Your task to perform on an android device: Go to notification settings Image 0: 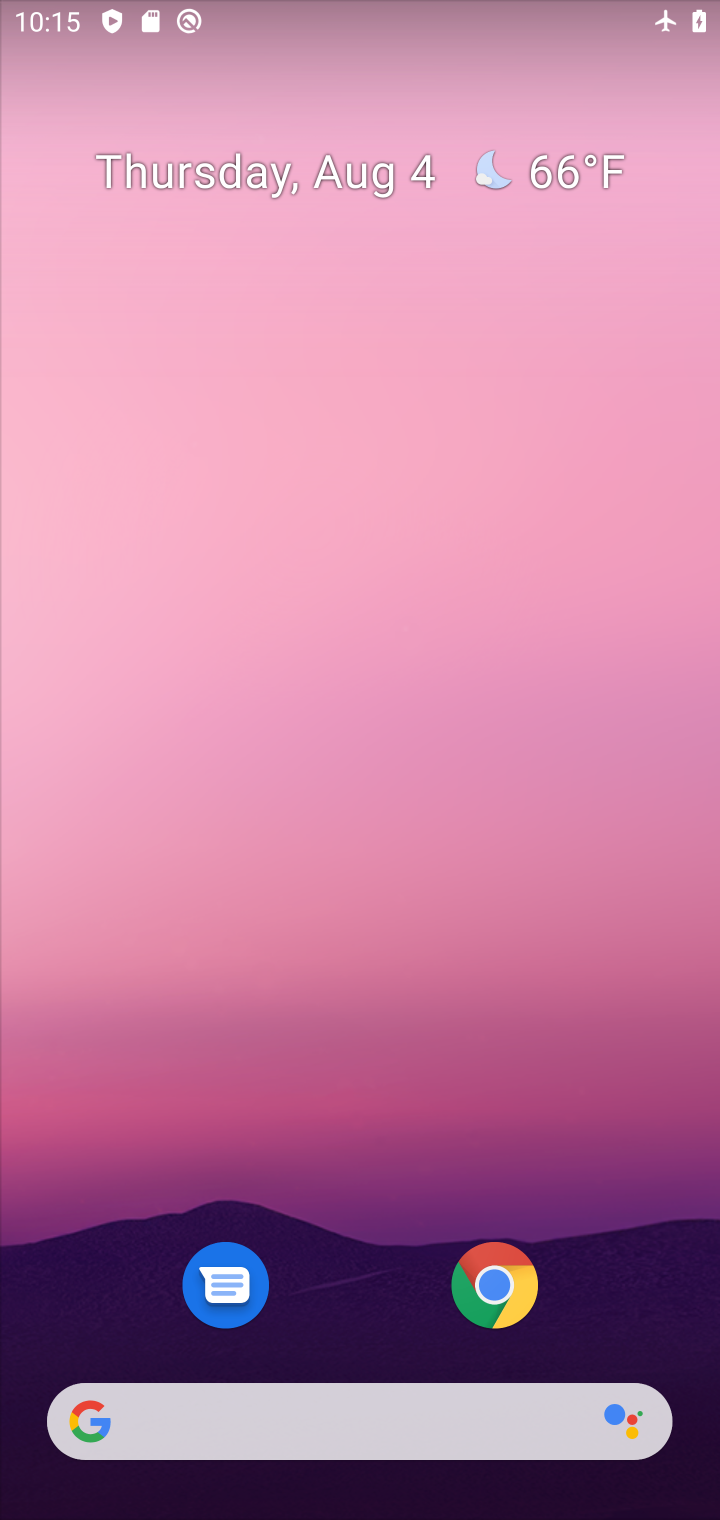
Step 0: drag from (391, 1124) to (444, 162)
Your task to perform on an android device: Go to notification settings Image 1: 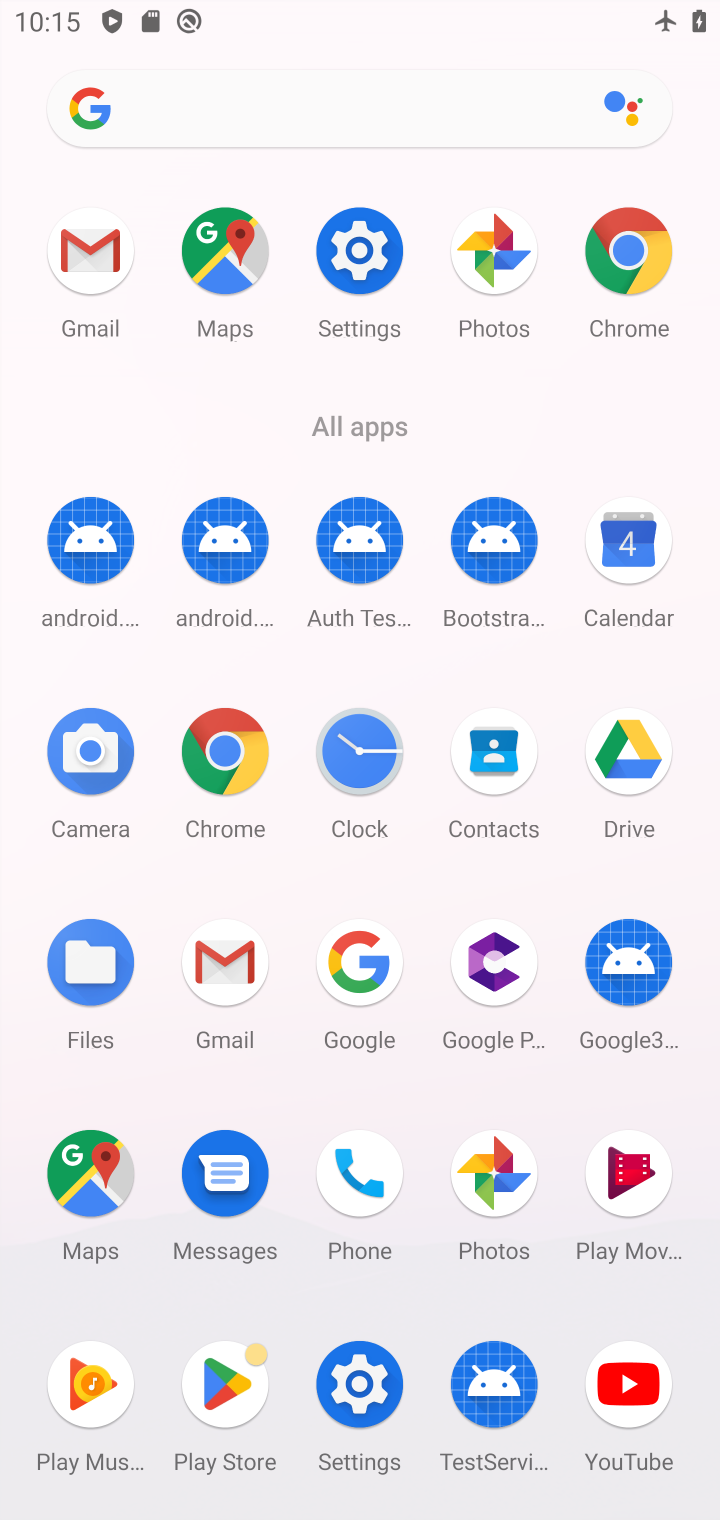
Step 1: click (370, 242)
Your task to perform on an android device: Go to notification settings Image 2: 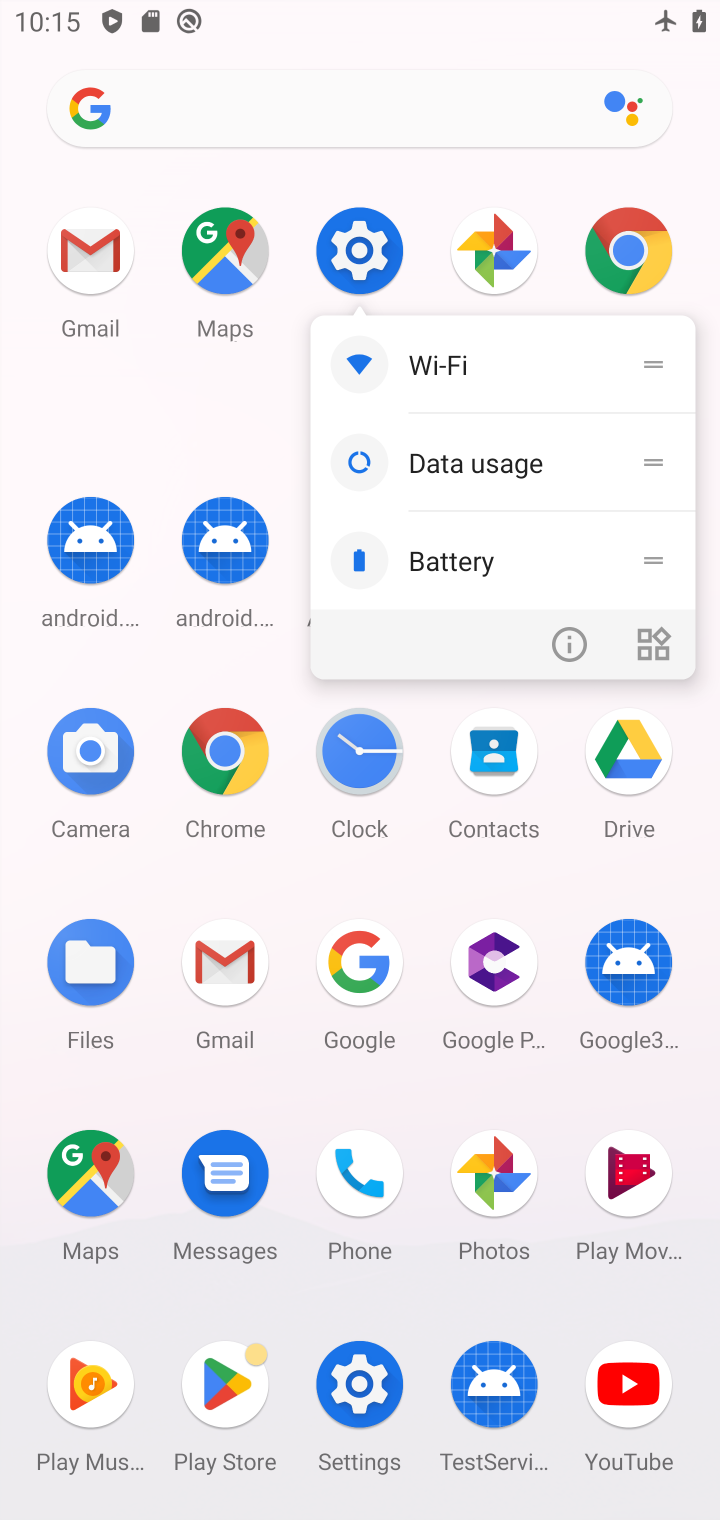
Step 2: click (370, 251)
Your task to perform on an android device: Go to notification settings Image 3: 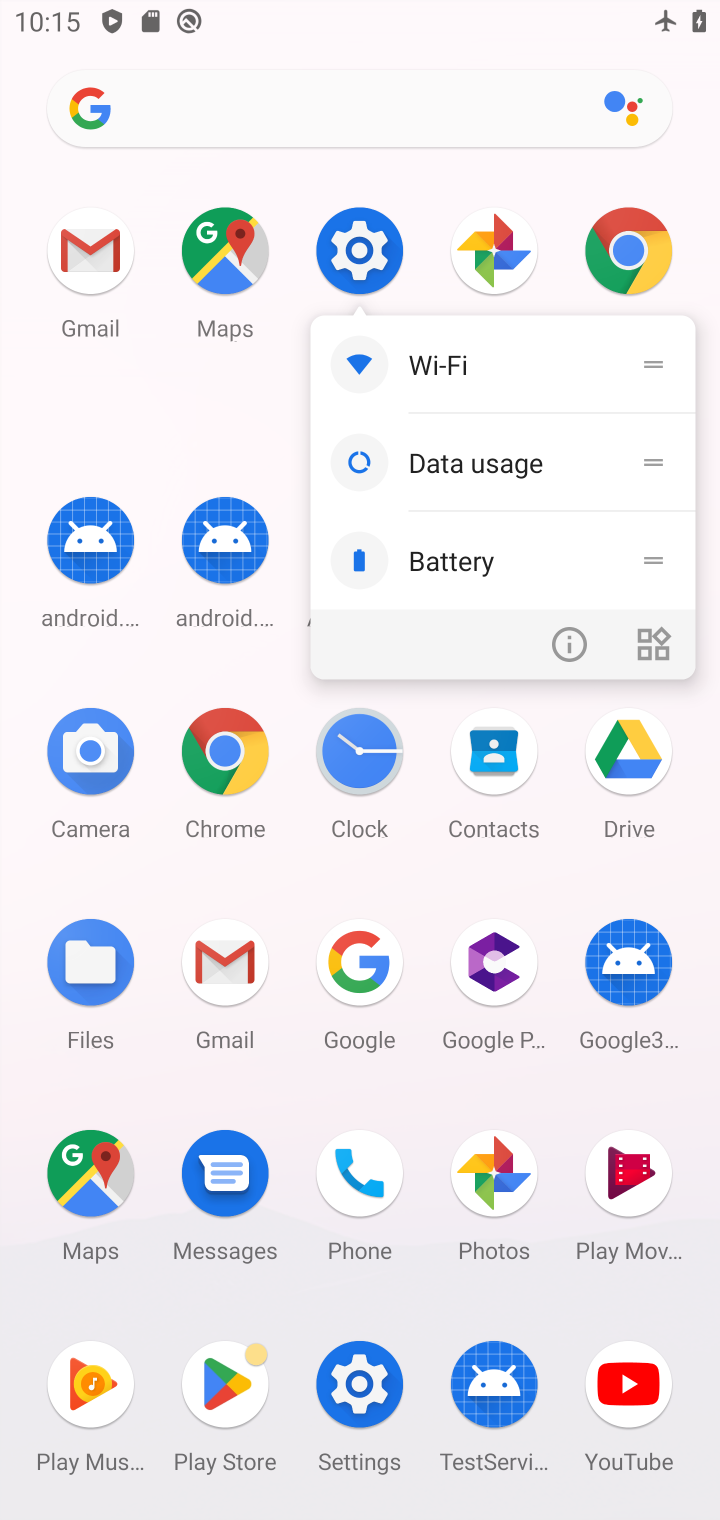
Step 3: click (354, 235)
Your task to perform on an android device: Go to notification settings Image 4: 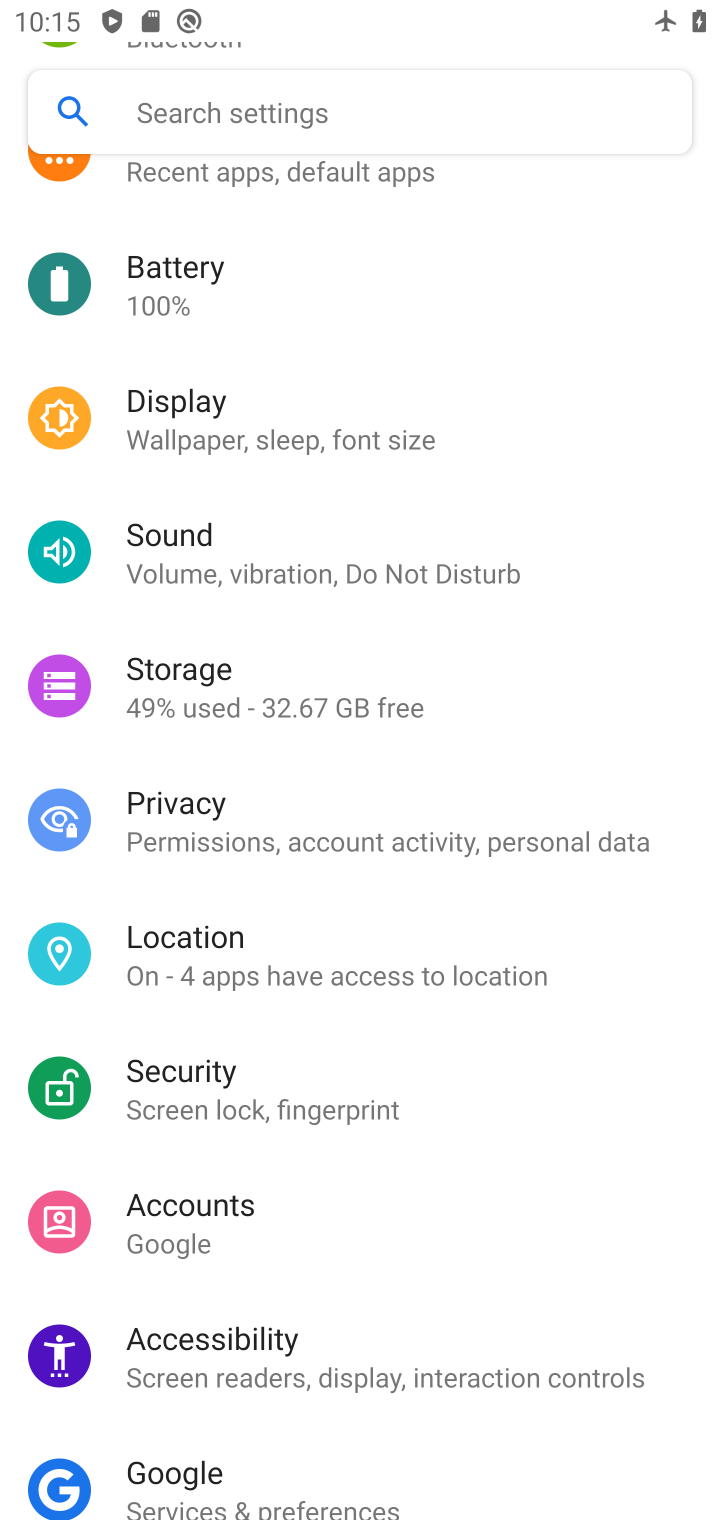
Step 4: drag from (377, 252) to (320, 1074)
Your task to perform on an android device: Go to notification settings Image 5: 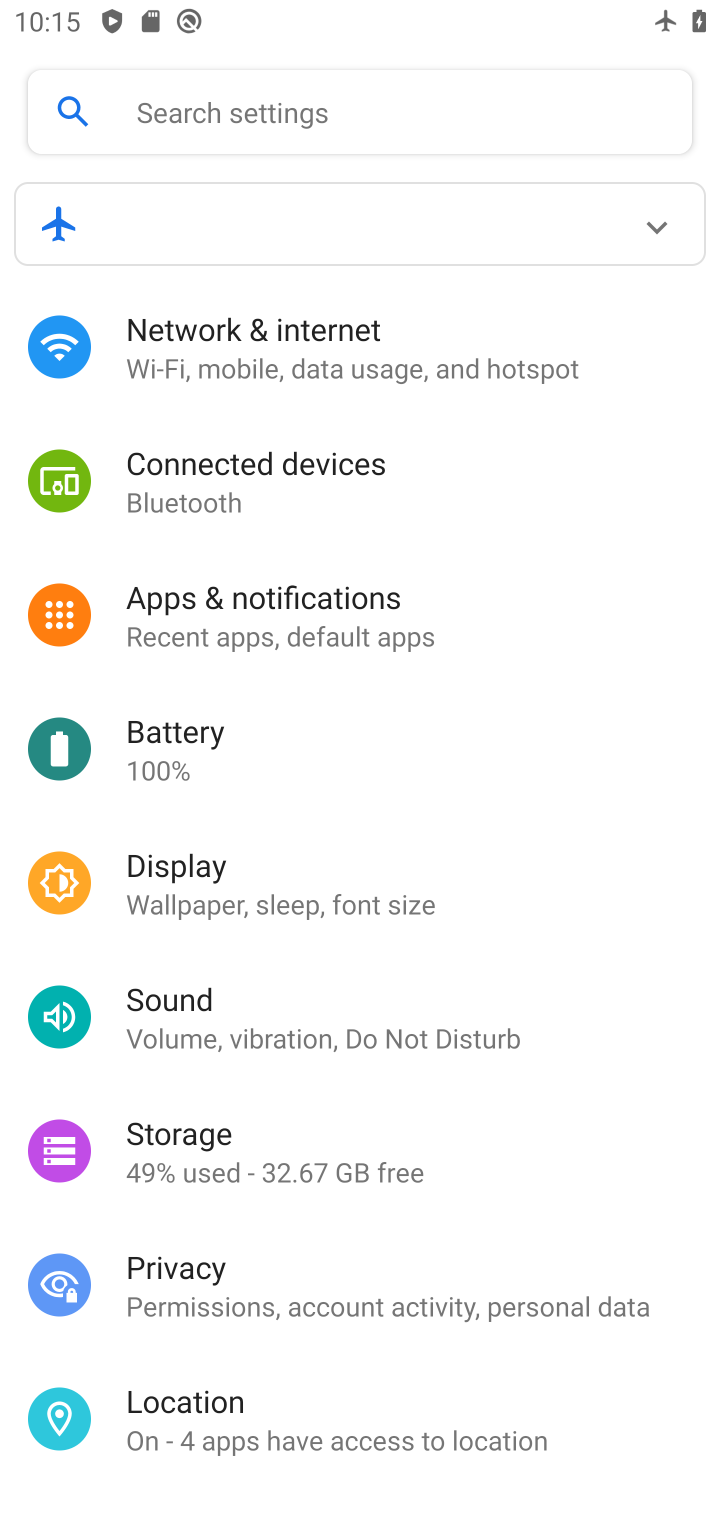
Step 5: click (281, 617)
Your task to perform on an android device: Go to notification settings Image 6: 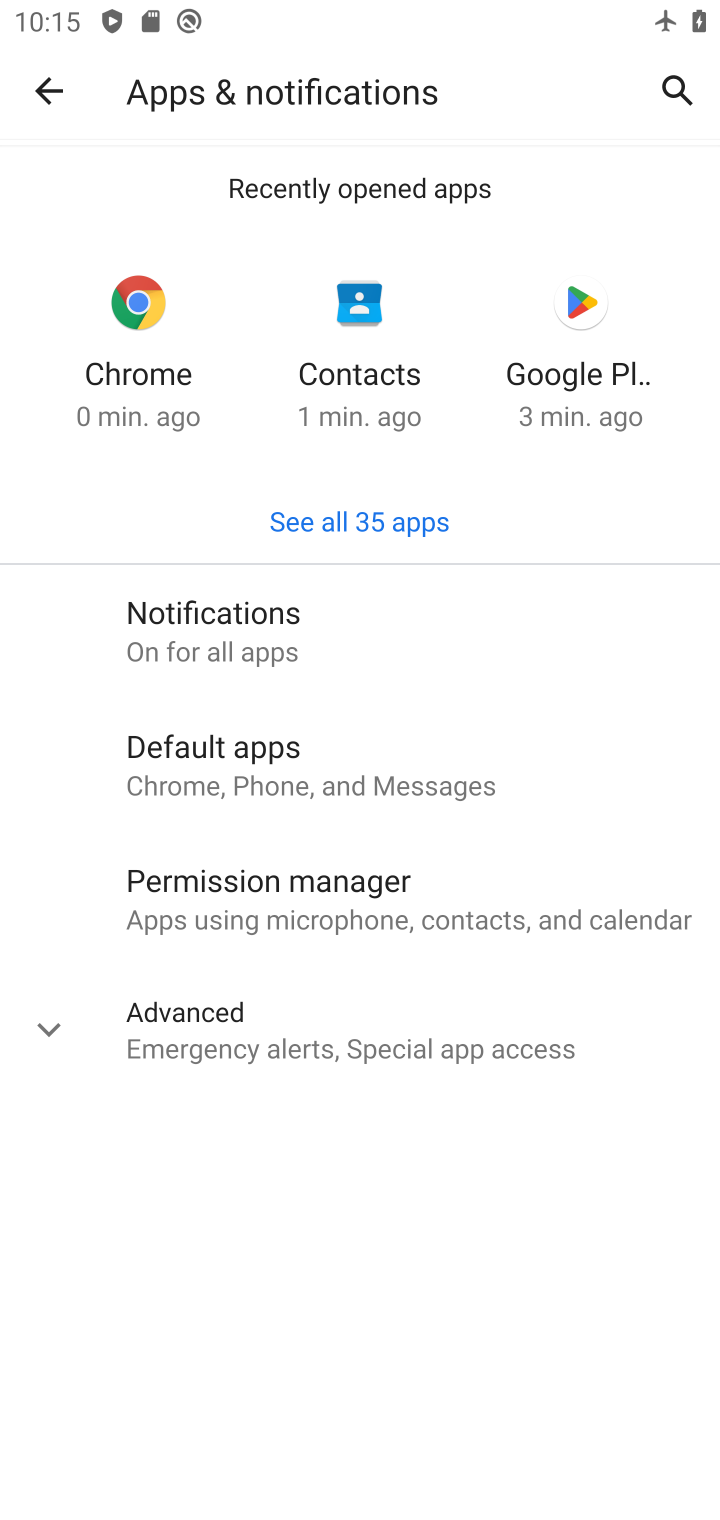
Step 6: click (281, 617)
Your task to perform on an android device: Go to notification settings Image 7: 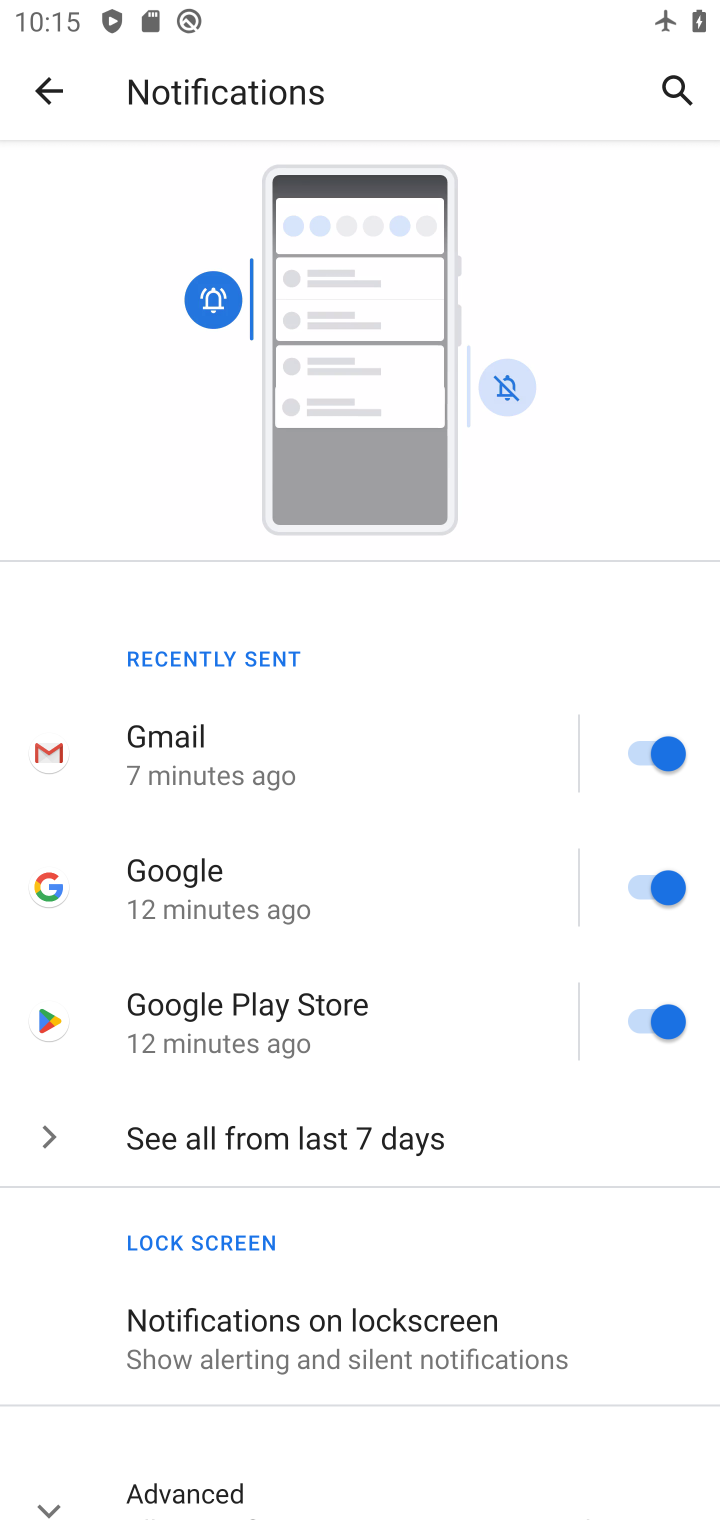
Step 7: task complete